Your task to perform on an android device: delete location history Image 0: 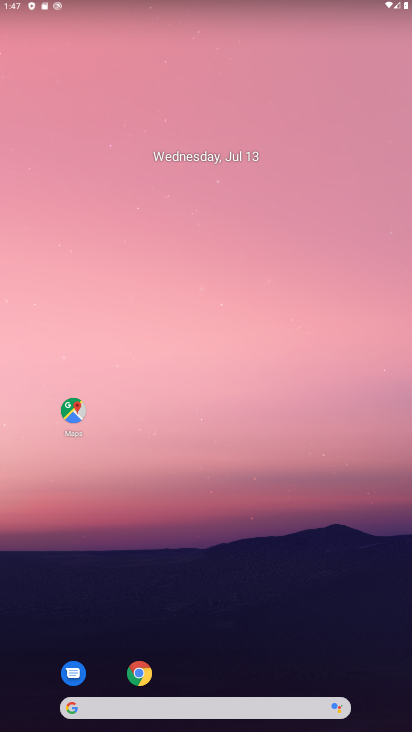
Step 0: drag from (268, 482) to (354, 1)
Your task to perform on an android device: delete location history Image 1: 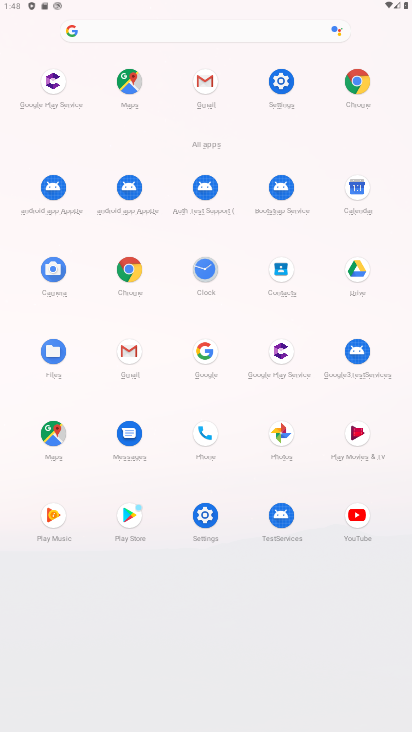
Step 1: click (54, 441)
Your task to perform on an android device: delete location history Image 2: 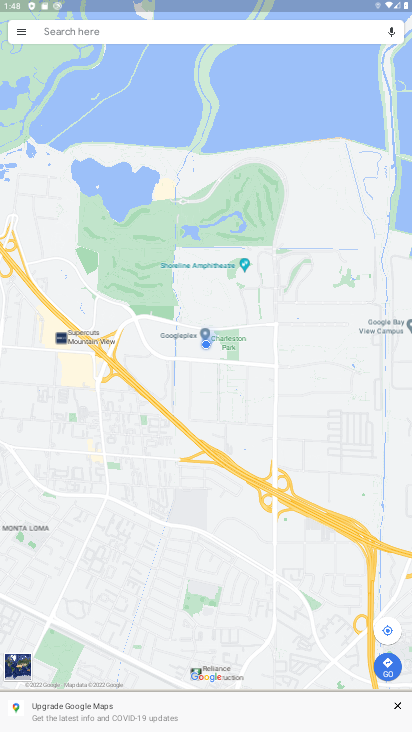
Step 2: click (17, 33)
Your task to perform on an android device: delete location history Image 3: 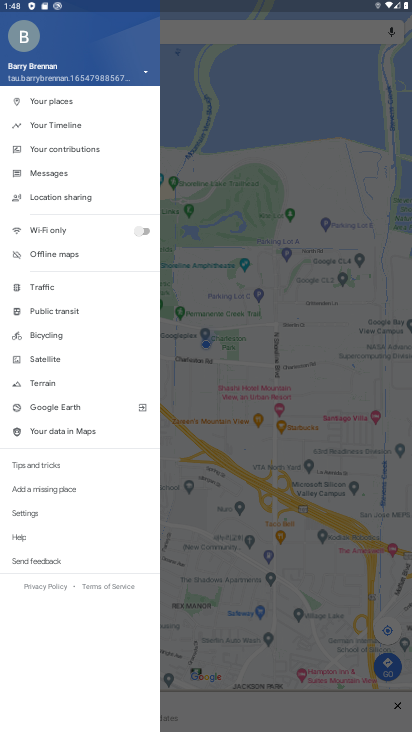
Step 3: click (60, 129)
Your task to perform on an android device: delete location history Image 4: 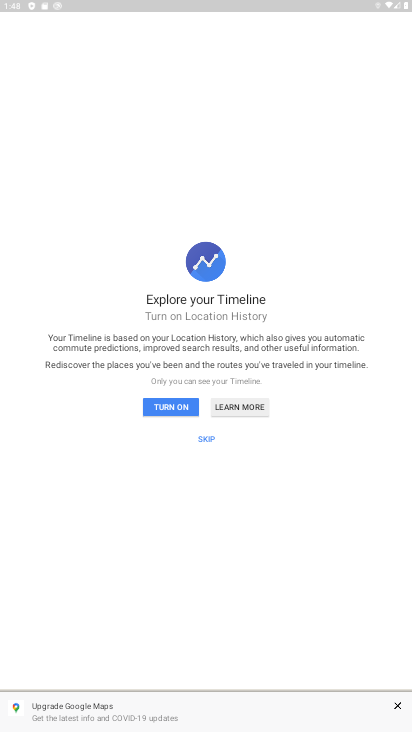
Step 4: click (209, 446)
Your task to perform on an android device: delete location history Image 5: 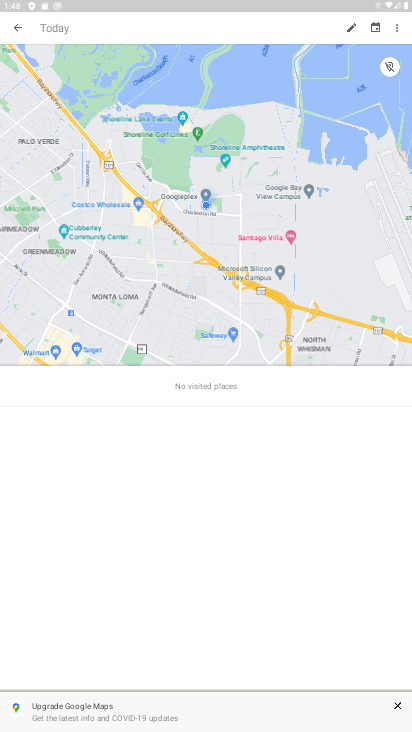
Step 5: click (408, 32)
Your task to perform on an android device: delete location history Image 6: 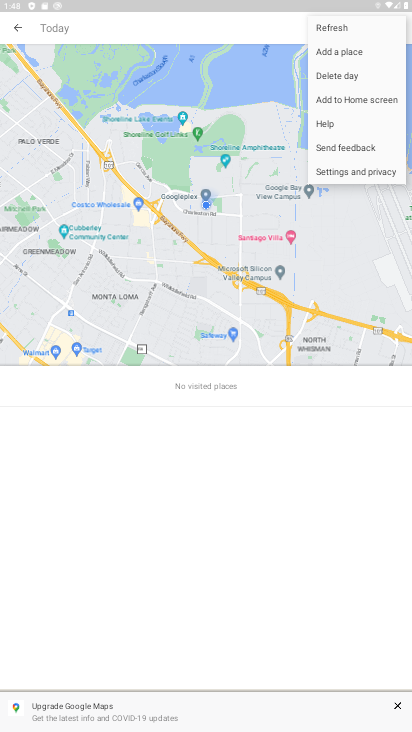
Step 6: click (342, 175)
Your task to perform on an android device: delete location history Image 7: 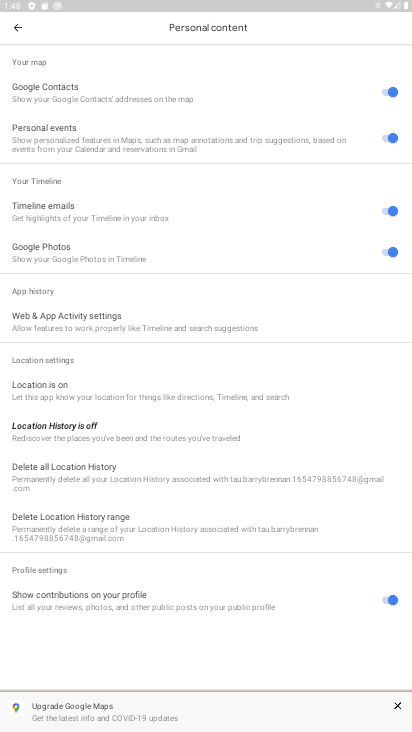
Step 7: click (85, 469)
Your task to perform on an android device: delete location history Image 8: 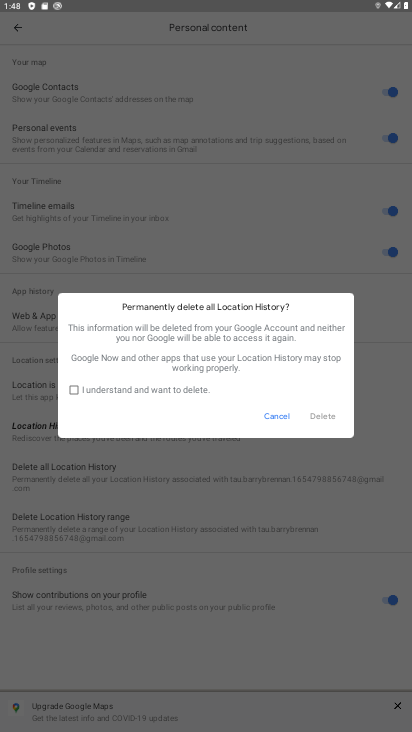
Step 8: click (77, 396)
Your task to perform on an android device: delete location history Image 9: 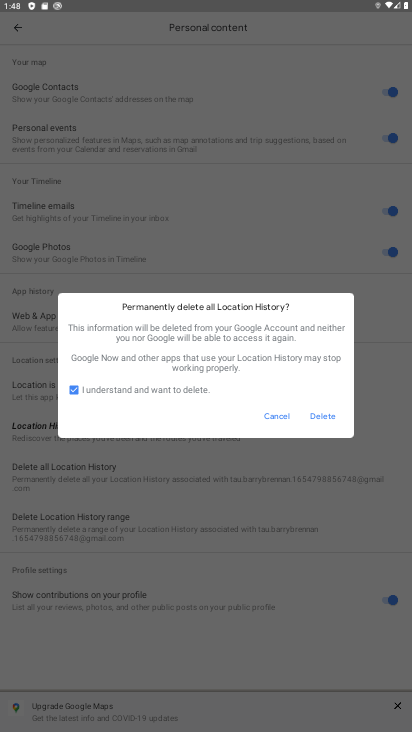
Step 9: click (321, 422)
Your task to perform on an android device: delete location history Image 10: 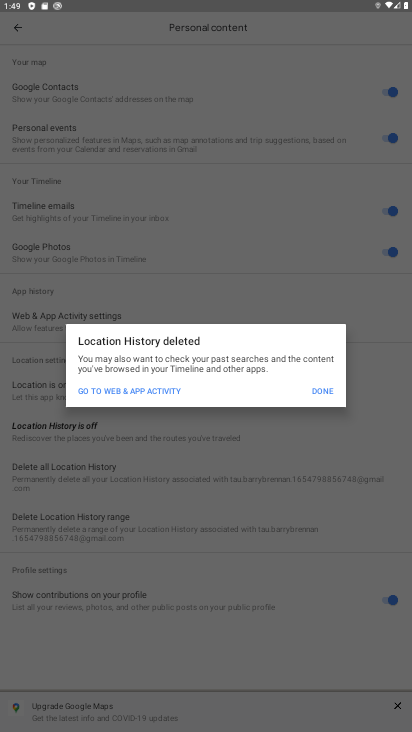
Step 10: click (320, 394)
Your task to perform on an android device: delete location history Image 11: 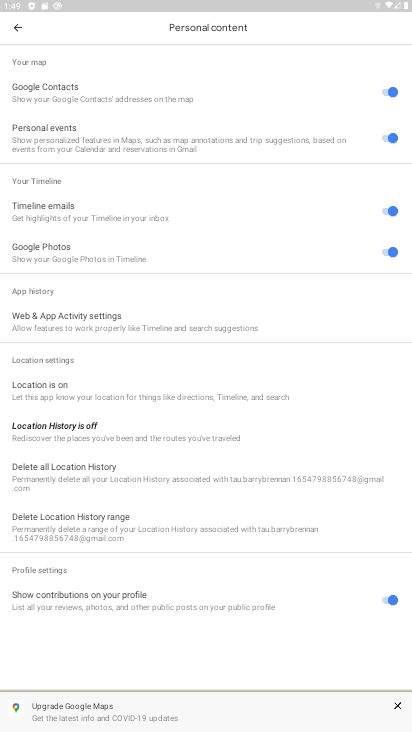
Step 11: task complete